Your task to perform on an android device: Is it going to rain tomorrow? Image 0: 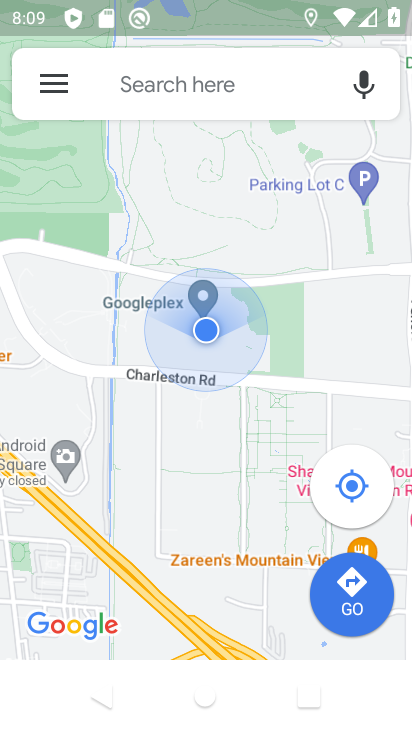
Step 0: press home button
Your task to perform on an android device: Is it going to rain tomorrow? Image 1: 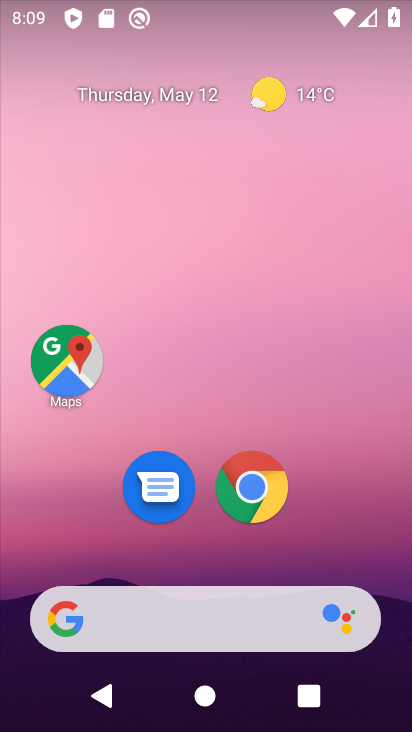
Step 1: click (321, 104)
Your task to perform on an android device: Is it going to rain tomorrow? Image 2: 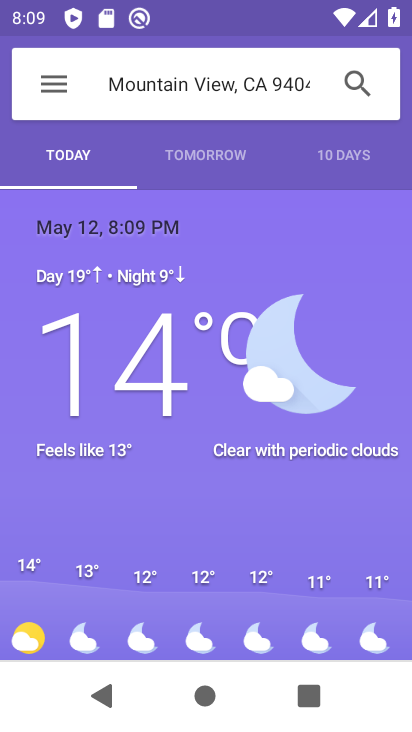
Step 2: click (192, 152)
Your task to perform on an android device: Is it going to rain tomorrow? Image 3: 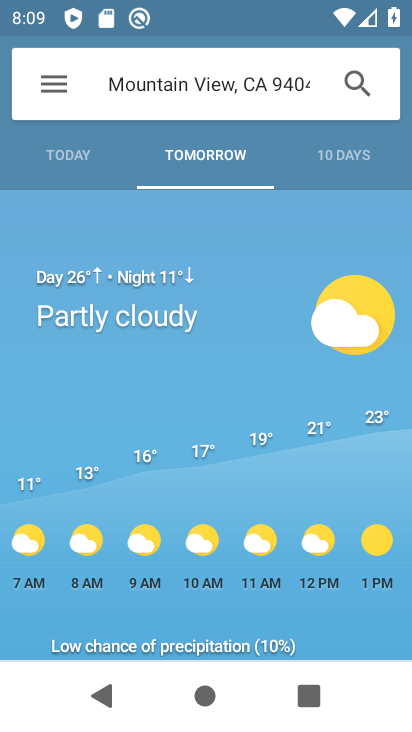
Step 3: task complete